Your task to perform on an android device: Open Maps and search for coffee Image 0: 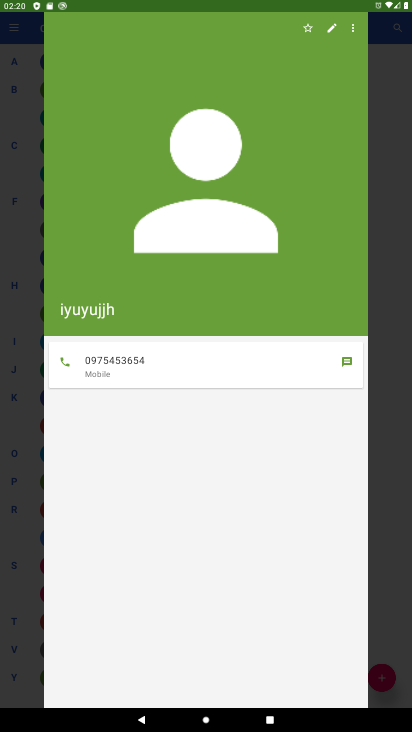
Step 0: press home button
Your task to perform on an android device: Open Maps and search for coffee Image 1: 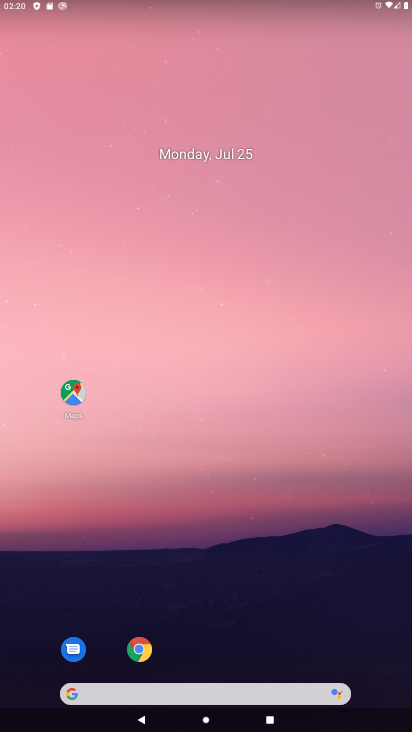
Step 1: click (73, 389)
Your task to perform on an android device: Open Maps and search for coffee Image 2: 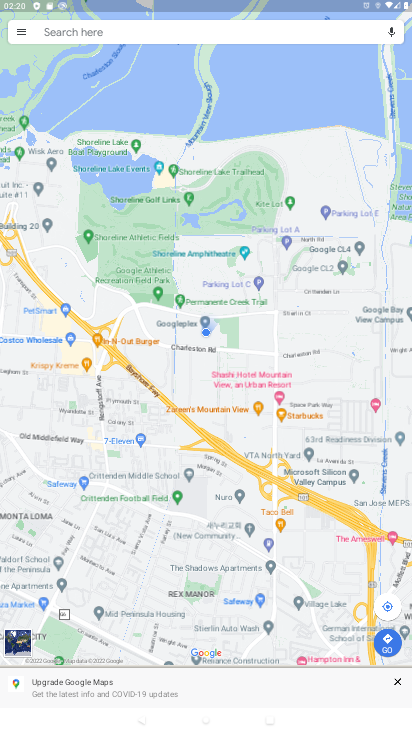
Step 2: click (93, 31)
Your task to perform on an android device: Open Maps and search for coffee Image 3: 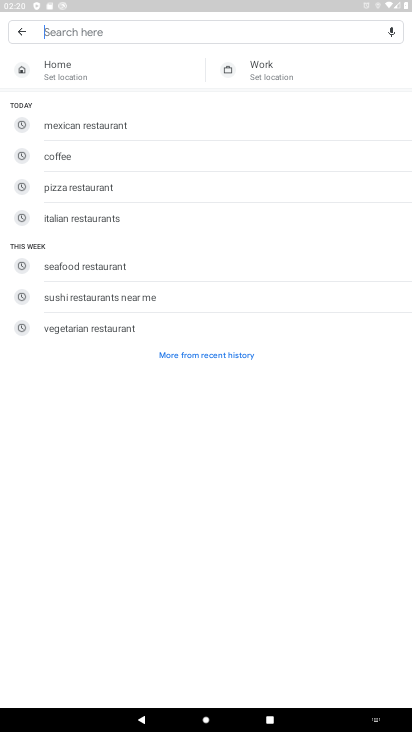
Step 3: type "coffee"
Your task to perform on an android device: Open Maps and search for coffee Image 4: 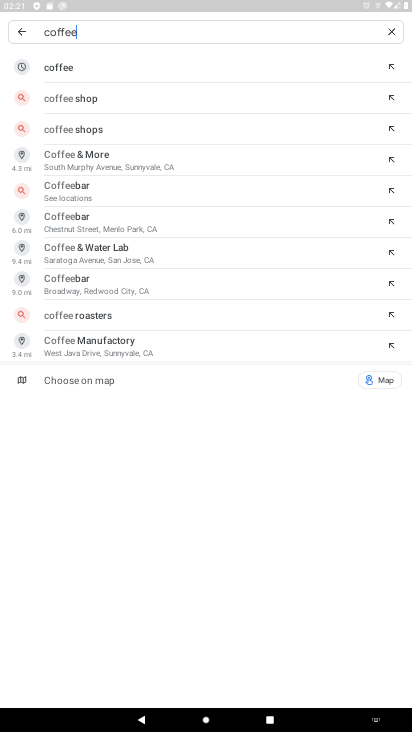
Step 4: click (50, 62)
Your task to perform on an android device: Open Maps and search for coffee Image 5: 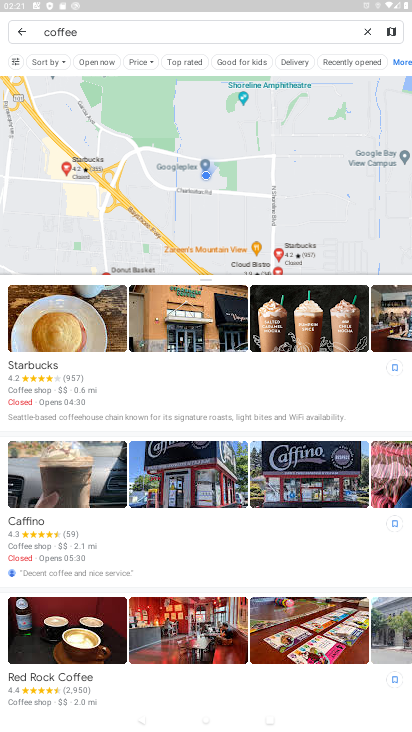
Step 5: click (211, 30)
Your task to perform on an android device: Open Maps and search for coffee Image 6: 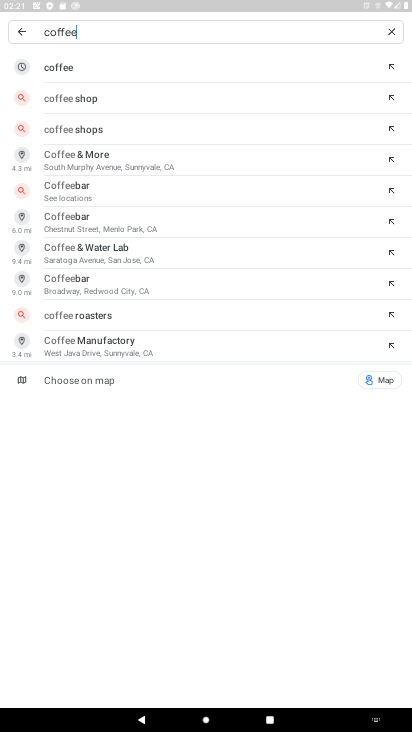
Step 6: click (65, 69)
Your task to perform on an android device: Open Maps and search for coffee Image 7: 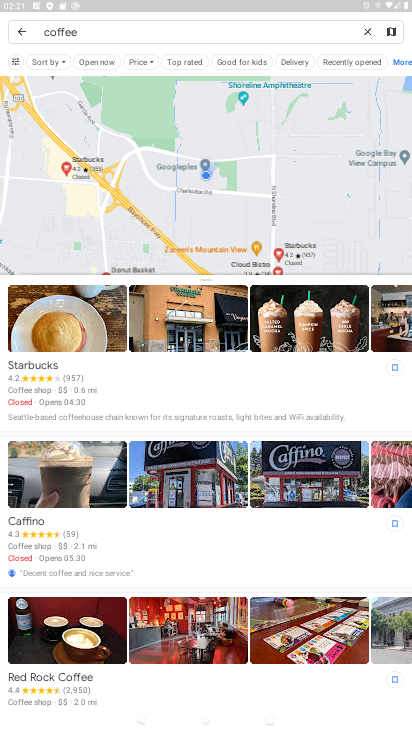
Step 7: task complete